Your task to perform on an android device: change your default location settings in chrome Image 0: 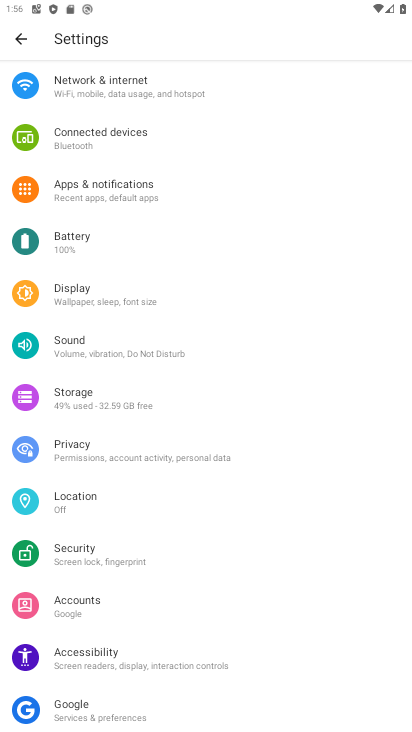
Step 0: press home button
Your task to perform on an android device: change your default location settings in chrome Image 1: 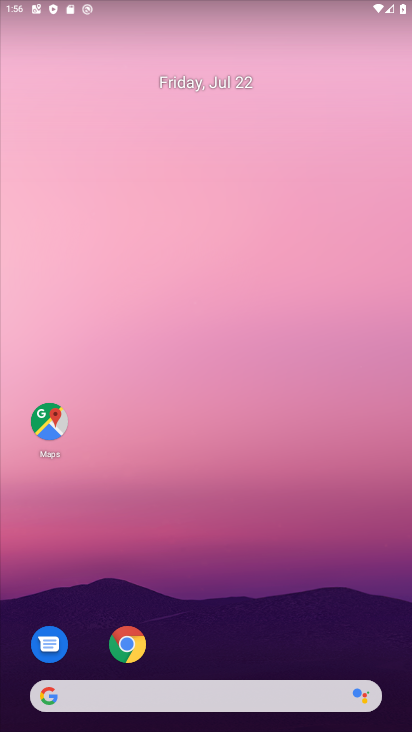
Step 1: click (131, 655)
Your task to perform on an android device: change your default location settings in chrome Image 2: 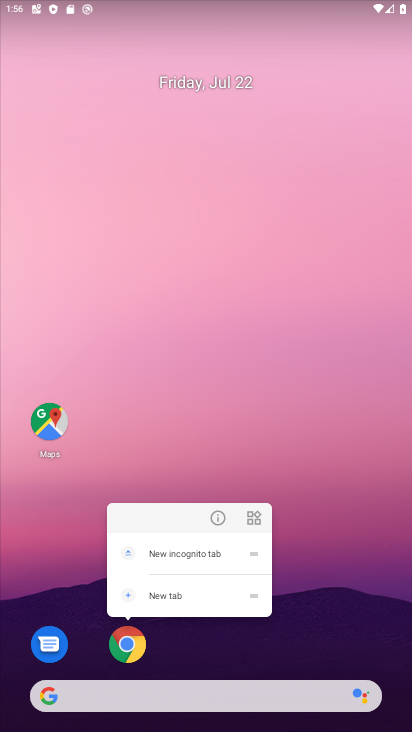
Step 2: click (131, 655)
Your task to perform on an android device: change your default location settings in chrome Image 3: 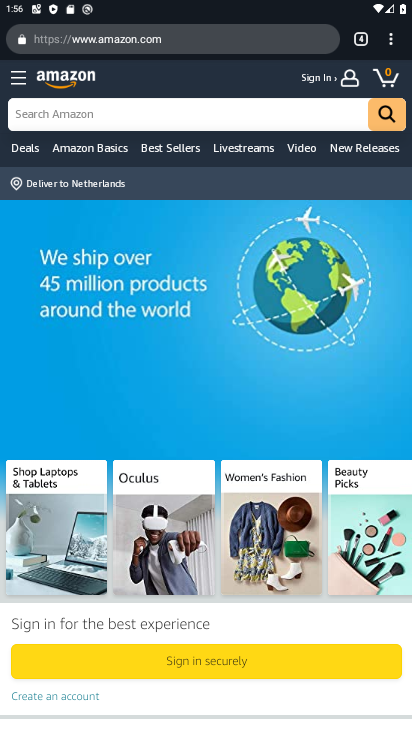
Step 3: click (394, 39)
Your task to perform on an android device: change your default location settings in chrome Image 4: 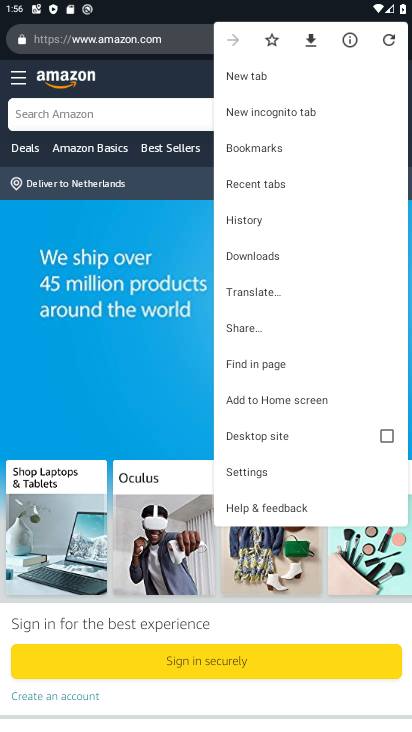
Step 4: click (254, 476)
Your task to perform on an android device: change your default location settings in chrome Image 5: 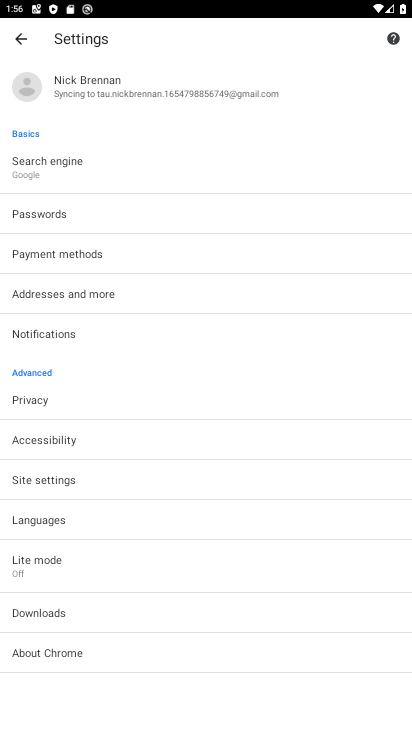
Step 5: click (56, 483)
Your task to perform on an android device: change your default location settings in chrome Image 6: 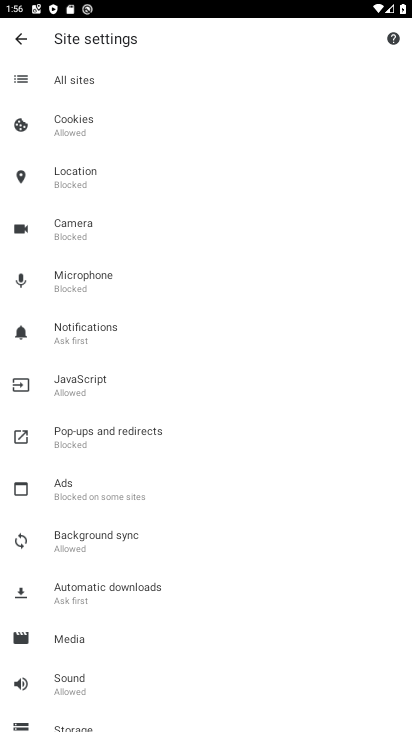
Step 6: click (80, 185)
Your task to perform on an android device: change your default location settings in chrome Image 7: 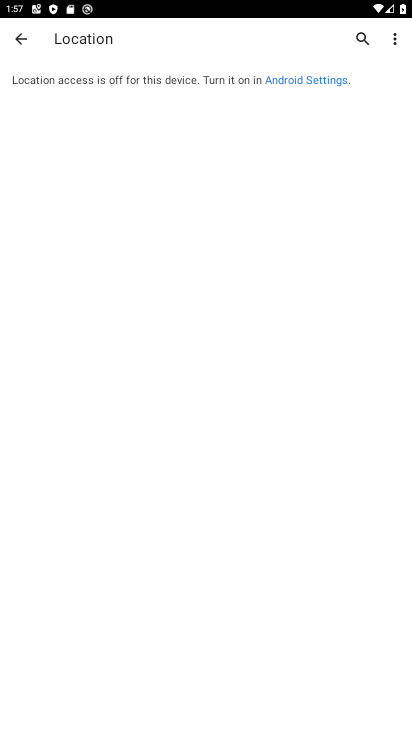
Step 7: task complete